Your task to perform on an android device: Open Maps and search for coffee Image 0: 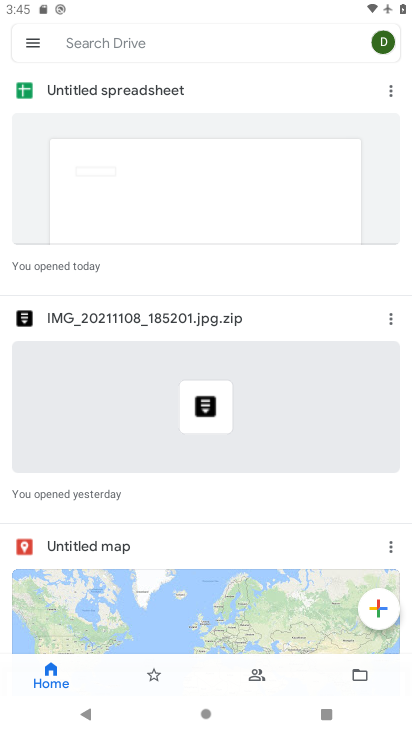
Step 0: press home button
Your task to perform on an android device: Open Maps and search for coffee Image 1: 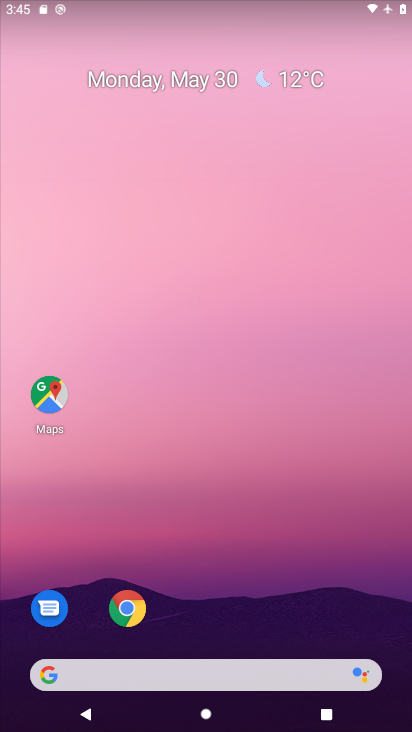
Step 1: click (49, 392)
Your task to perform on an android device: Open Maps and search for coffee Image 2: 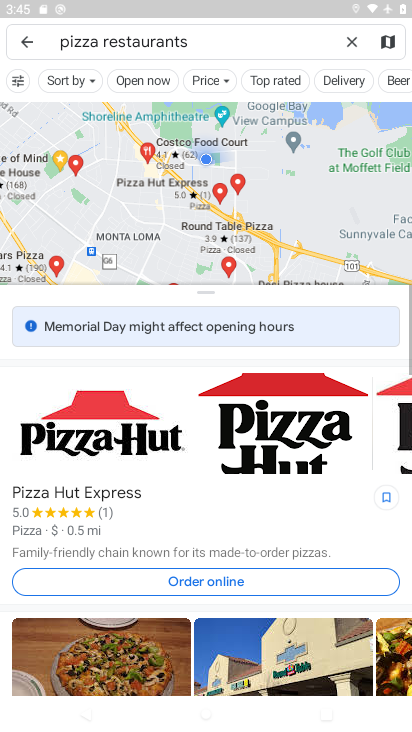
Step 2: click (347, 46)
Your task to perform on an android device: Open Maps and search for coffee Image 3: 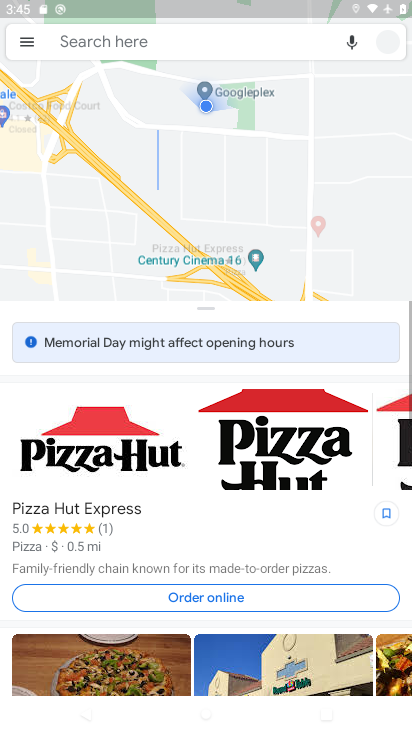
Step 3: click (196, 37)
Your task to perform on an android device: Open Maps and search for coffee Image 4: 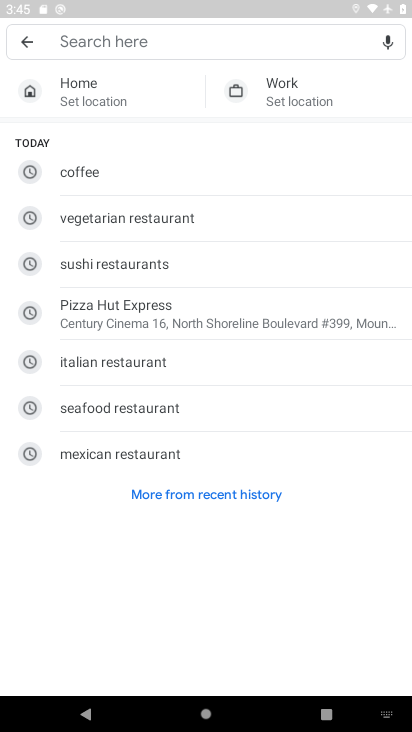
Step 4: type "coffee"
Your task to perform on an android device: Open Maps and search for coffee Image 5: 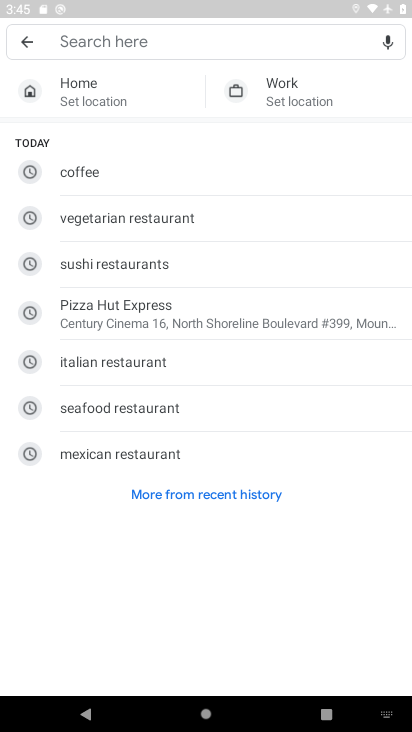
Step 5: click (59, 167)
Your task to perform on an android device: Open Maps and search for coffee Image 6: 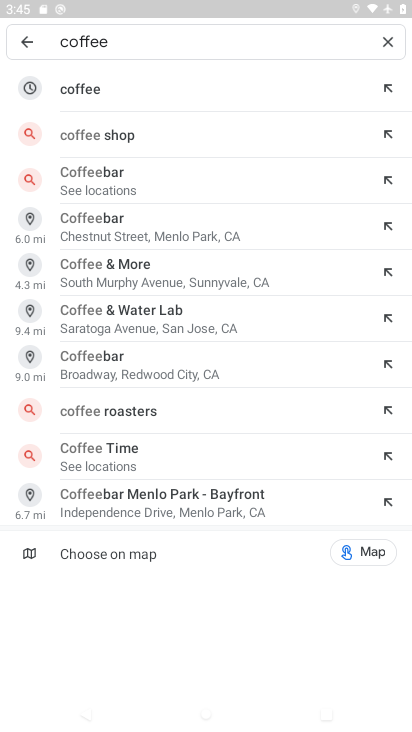
Step 6: click (110, 75)
Your task to perform on an android device: Open Maps and search for coffee Image 7: 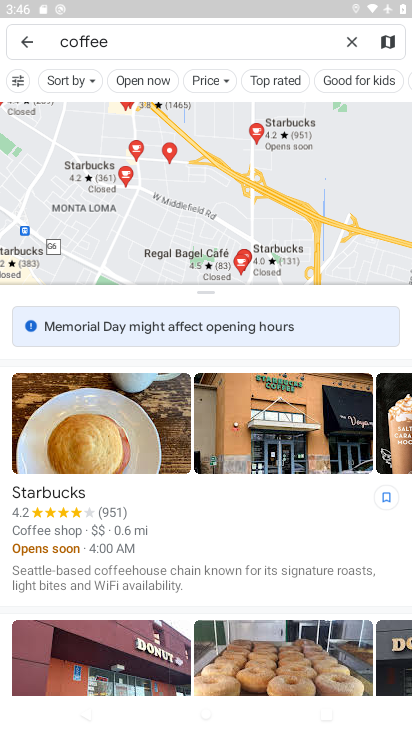
Step 7: task complete